Your task to perform on an android device: open sync settings in chrome Image 0: 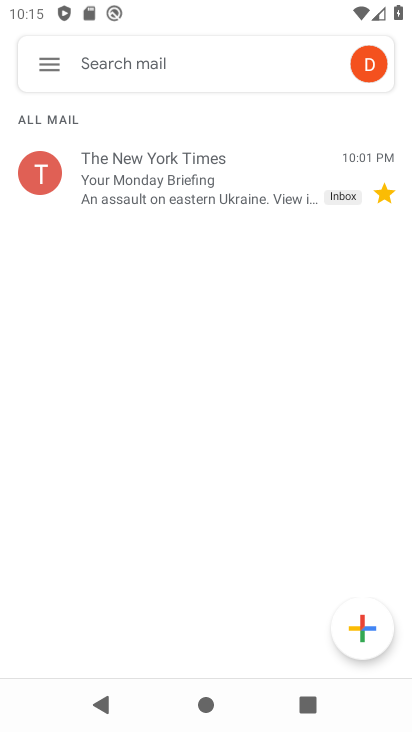
Step 0: press home button
Your task to perform on an android device: open sync settings in chrome Image 1: 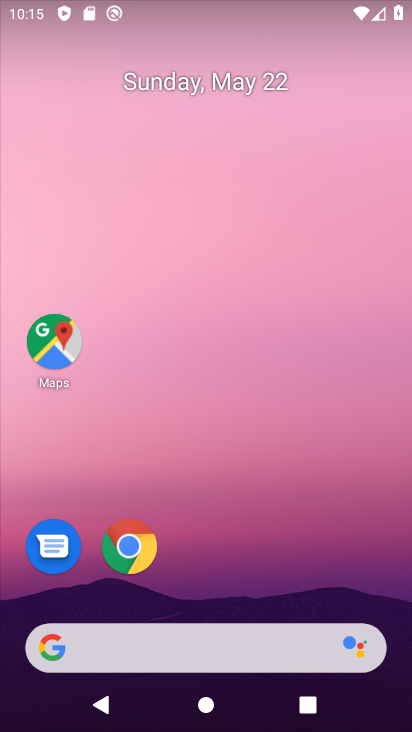
Step 1: drag from (193, 544) to (187, 2)
Your task to perform on an android device: open sync settings in chrome Image 2: 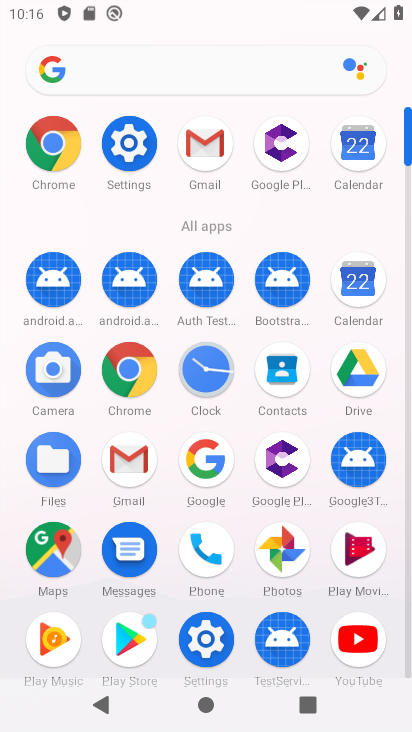
Step 2: click (122, 379)
Your task to perform on an android device: open sync settings in chrome Image 3: 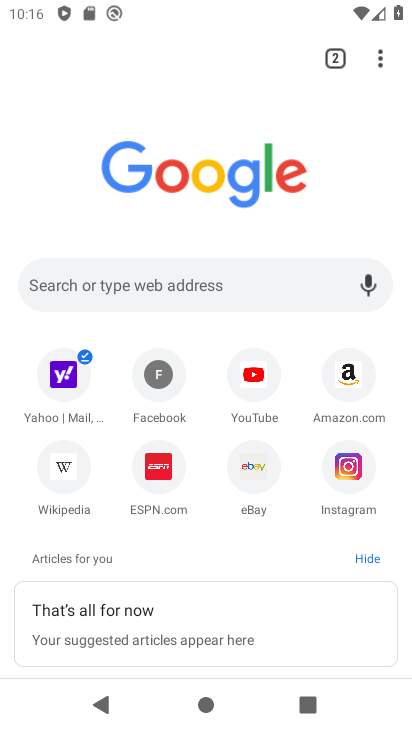
Step 3: click (378, 52)
Your task to perform on an android device: open sync settings in chrome Image 4: 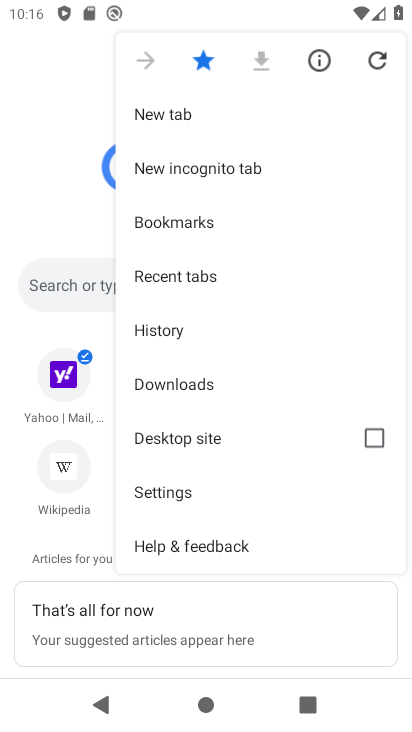
Step 4: click (195, 494)
Your task to perform on an android device: open sync settings in chrome Image 5: 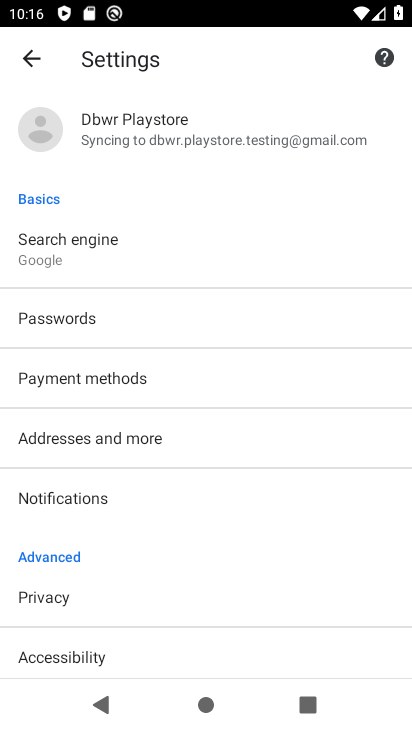
Step 5: click (146, 136)
Your task to perform on an android device: open sync settings in chrome Image 6: 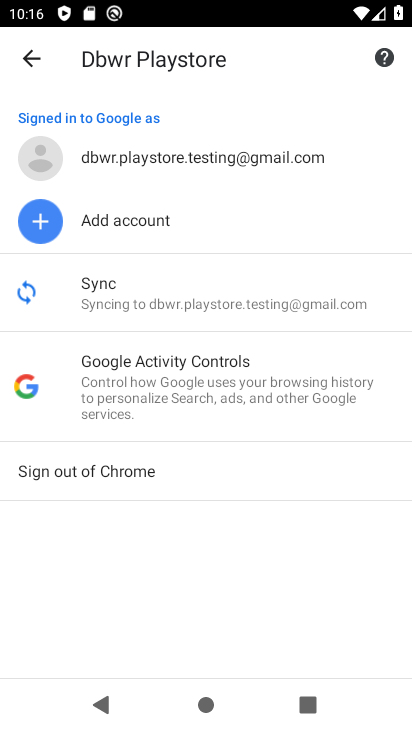
Step 6: click (146, 290)
Your task to perform on an android device: open sync settings in chrome Image 7: 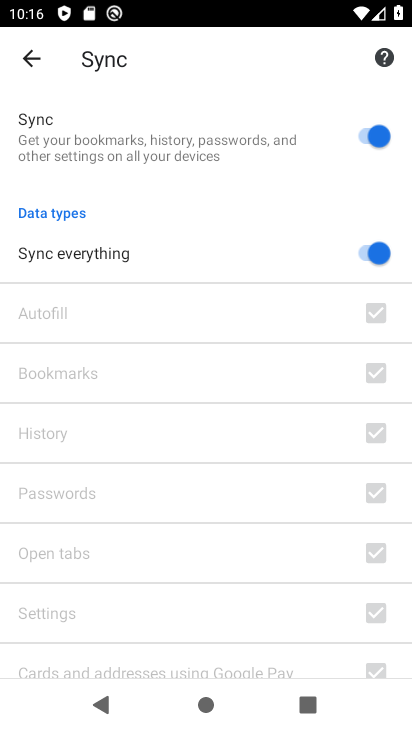
Step 7: task complete